Your task to perform on an android device: open app "File Manager" Image 0: 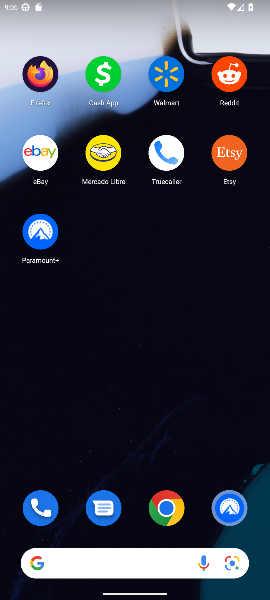
Step 0: drag from (197, 453) to (227, 20)
Your task to perform on an android device: open app "File Manager" Image 1: 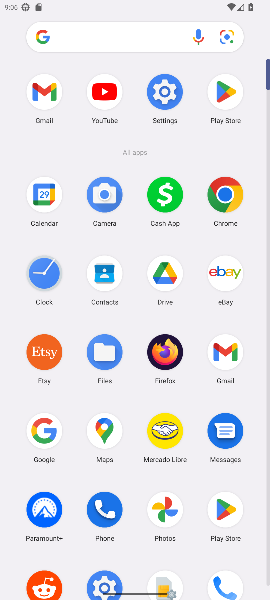
Step 1: click (219, 95)
Your task to perform on an android device: open app "File Manager" Image 2: 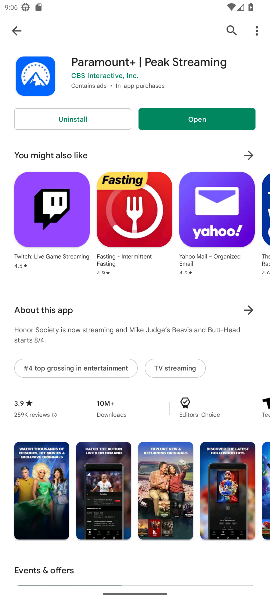
Step 2: click (227, 24)
Your task to perform on an android device: open app "File Manager" Image 3: 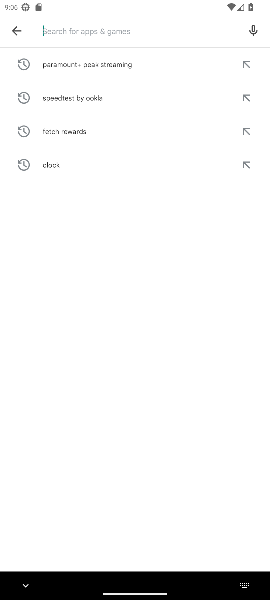
Step 3: type "file manager"
Your task to perform on an android device: open app "File Manager" Image 4: 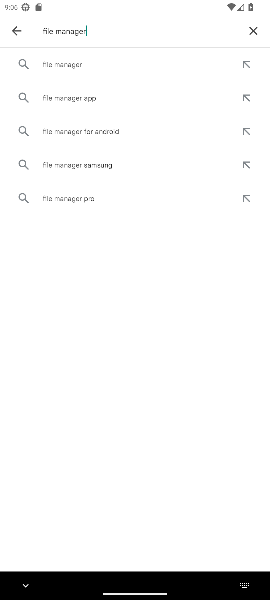
Step 4: click (80, 66)
Your task to perform on an android device: open app "File Manager" Image 5: 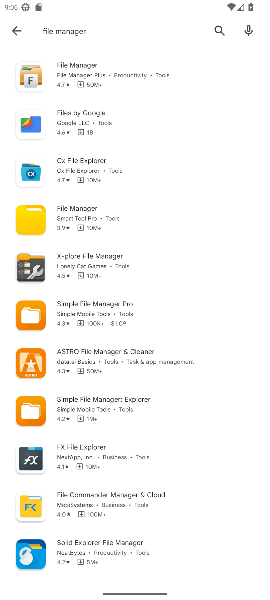
Step 5: click (94, 80)
Your task to perform on an android device: open app "File Manager" Image 6: 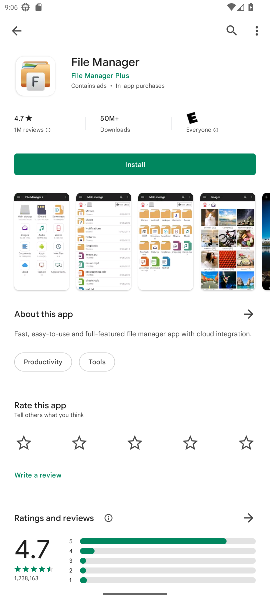
Step 6: click (166, 166)
Your task to perform on an android device: open app "File Manager" Image 7: 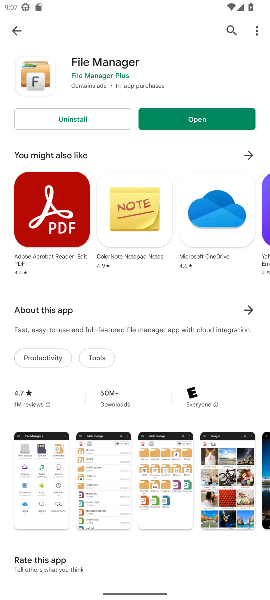
Step 7: click (195, 114)
Your task to perform on an android device: open app "File Manager" Image 8: 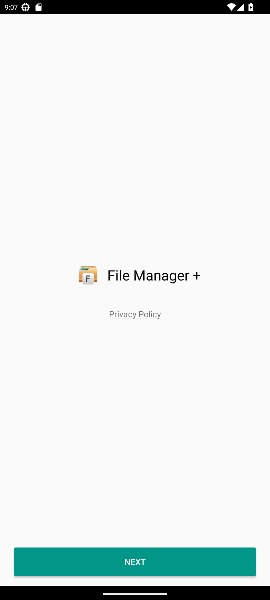
Step 8: task complete